Your task to perform on an android device: Add "macbook" to the cart on bestbuy.com, then select checkout. Image 0: 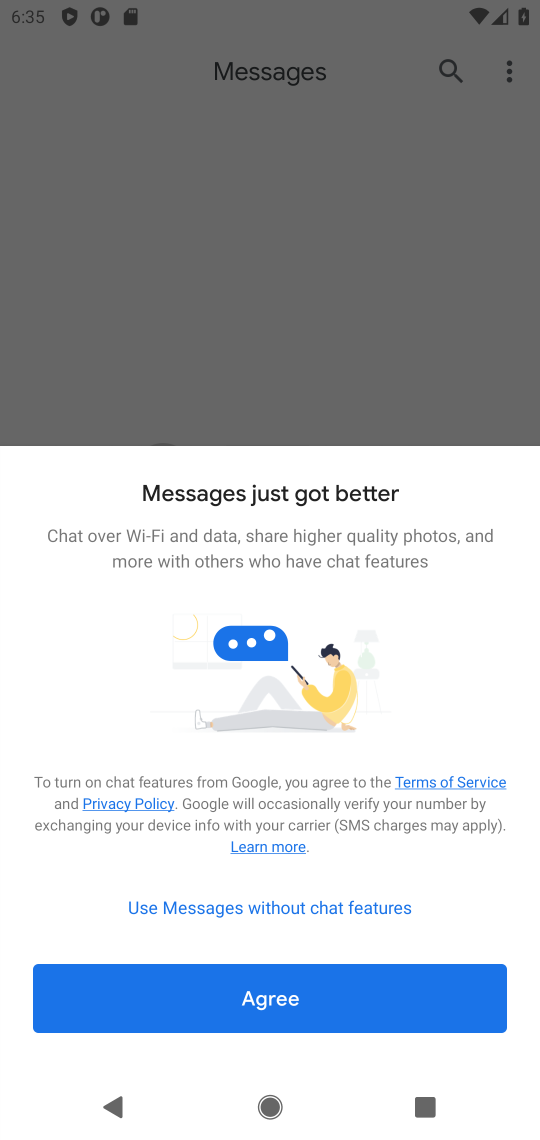
Step 0: press home button
Your task to perform on an android device: Add "macbook" to the cart on bestbuy.com, then select checkout. Image 1: 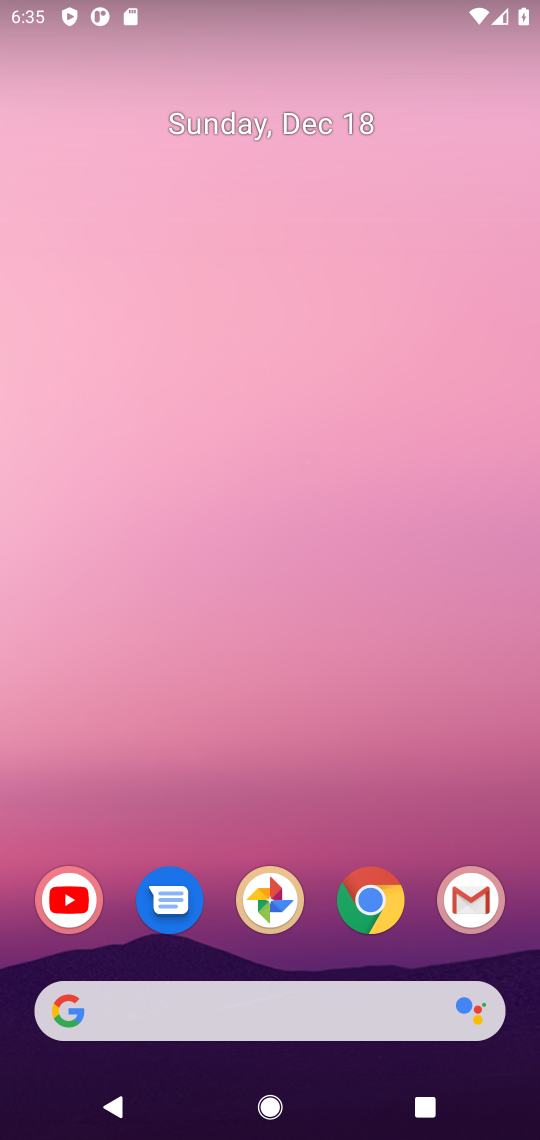
Step 1: click (363, 898)
Your task to perform on an android device: Add "macbook" to the cart on bestbuy.com, then select checkout. Image 2: 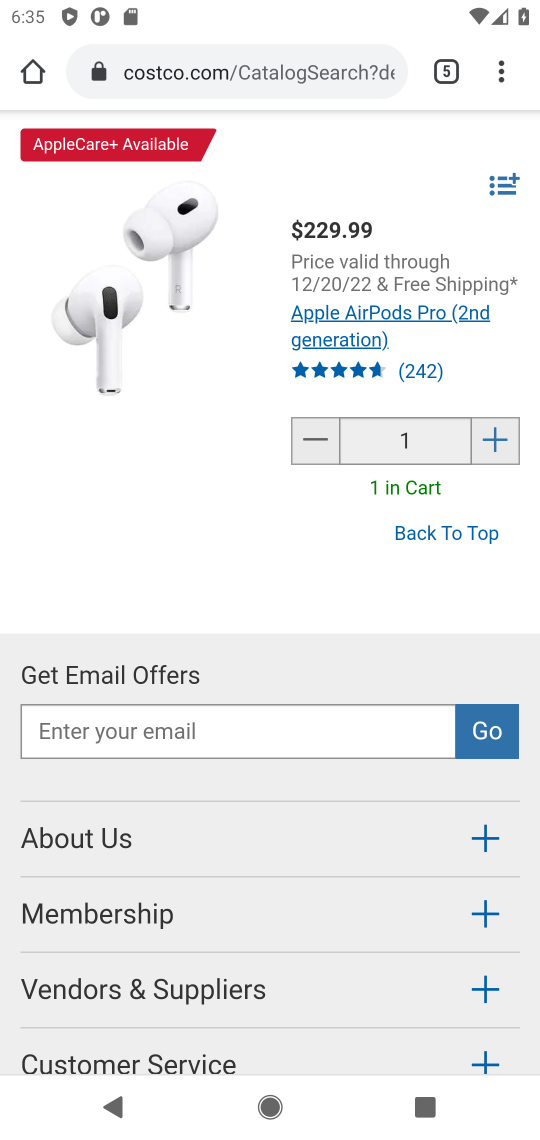
Step 2: click (436, 73)
Your task to perform on an android device: Add "macbook" to the cart on bestbuy.com, then select checkout. Image 3: 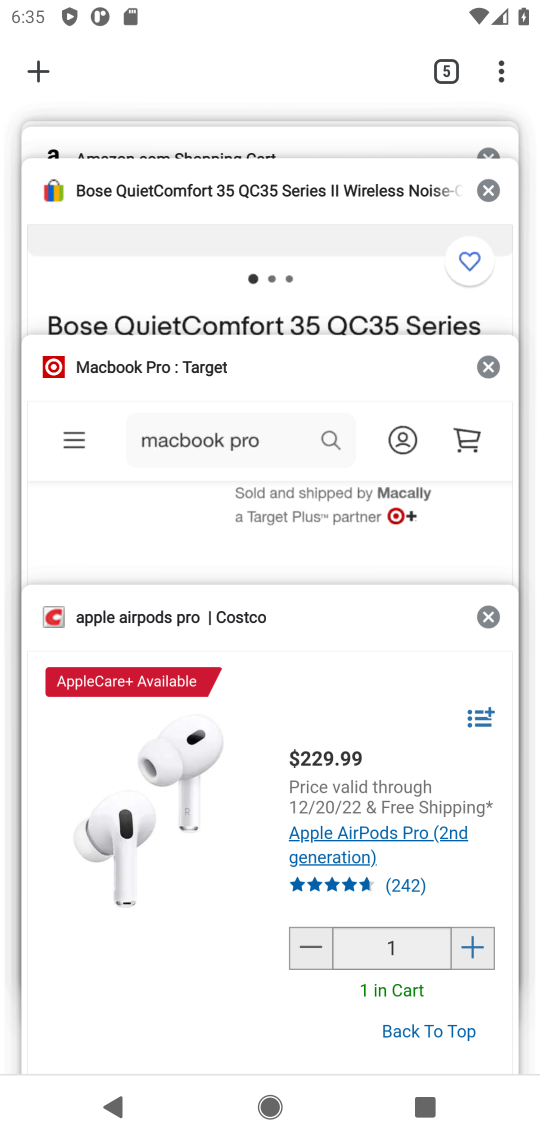
Step 3: click (47, 75)
Your task to perform on an android device: Add "macbook" to the cart on bestbuy.com, then select checkout. Image 4: 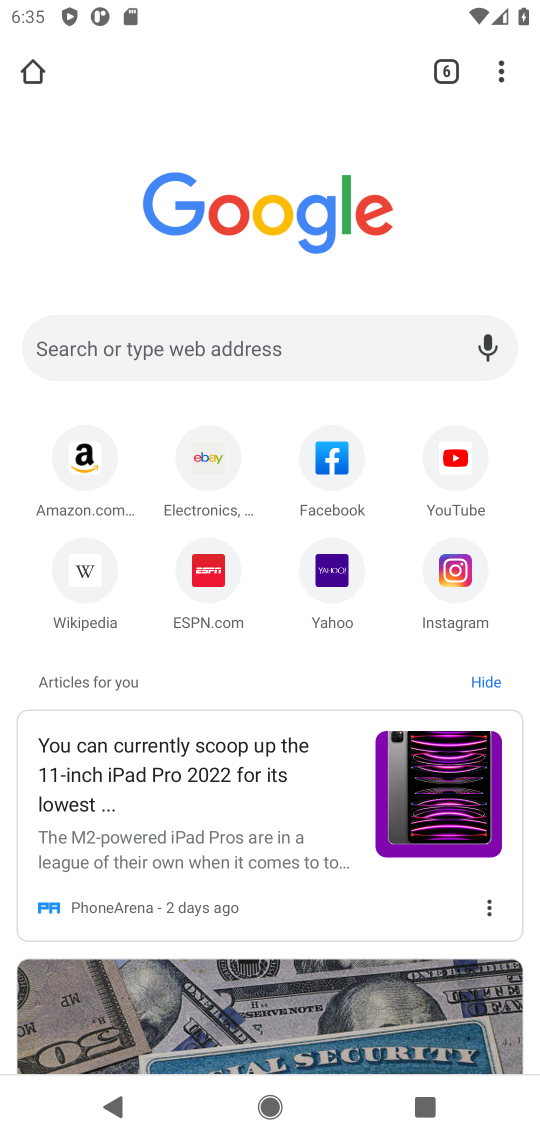
Step 4: click (243, 343)
Your task to perform on an android device: Add "macbook" to the cart on bestbuy.com, then select checkout. Image 5: 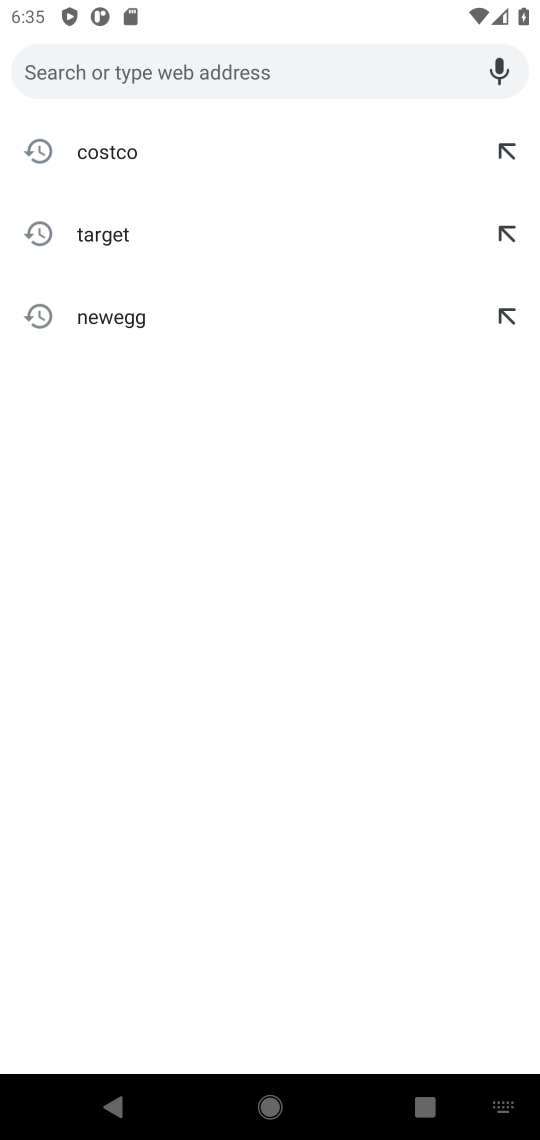
Step 5: type "bestbuy"
Your task to perform on an android device: Add "macbook" to the cart on bestbuy.com, then select checkout. Image 6: 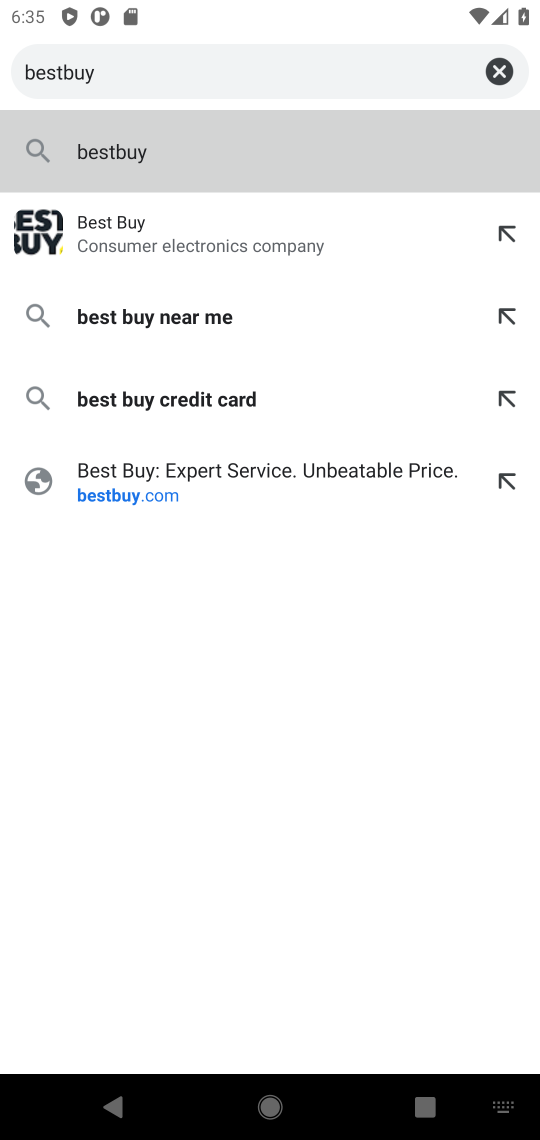
Step 6: click (90, 234)
Your task to perform on an android device: Add "macbook" to the cart on bestbuy.com, then select checkout. Image 7: 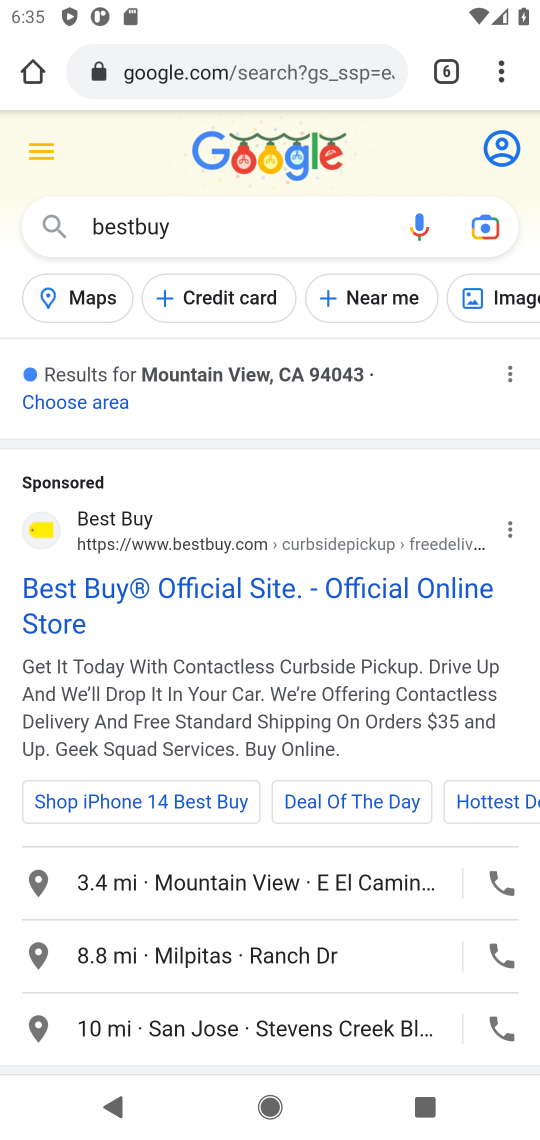
Step 7: click (204, 600)
Your task to perform on an android device: Add "macbook" to the cart on bestbuy.com, then select checkout. Image 8: 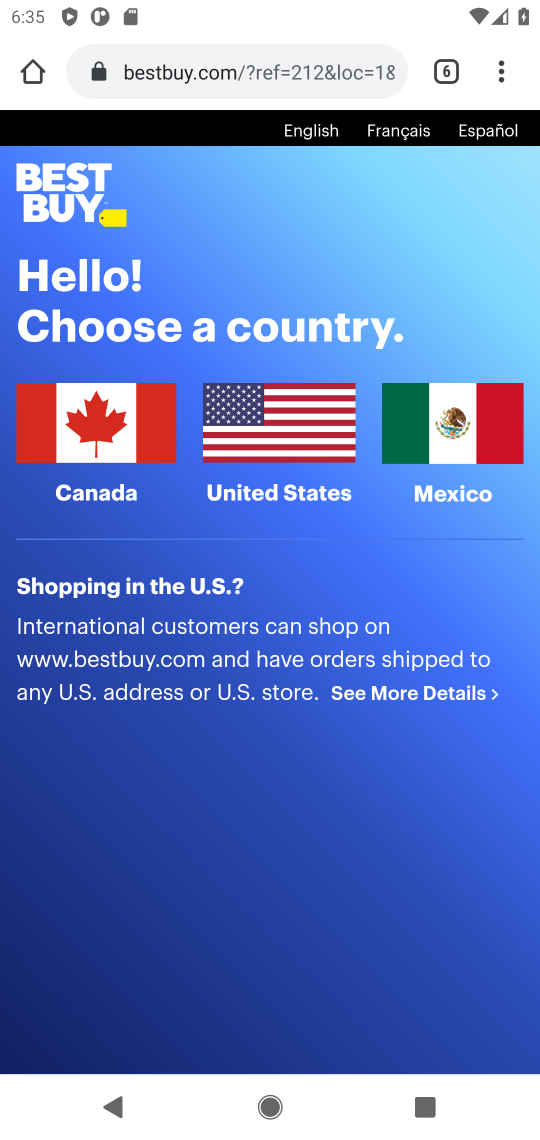
Step 8: click (266, 434)
Your task to perform on an android device: Add "macbook" to the cart on bestbuy.com, then select checkout. Image 9: 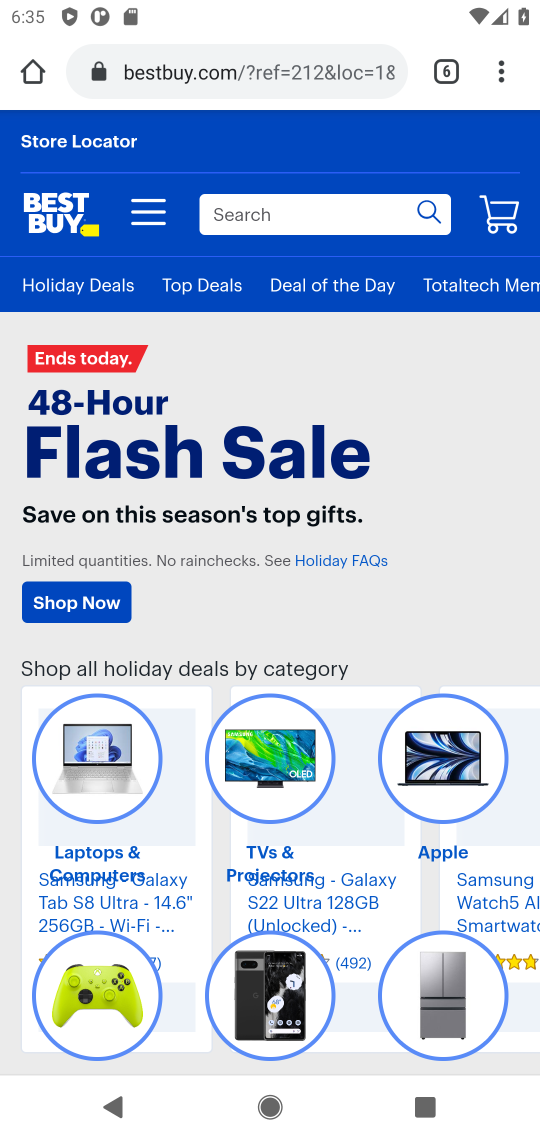
Step 9: click (242, 219)
Your task to perform on an android device: Add "macbook" to the cart on bestbuy.com, then select checkout. Image 10: 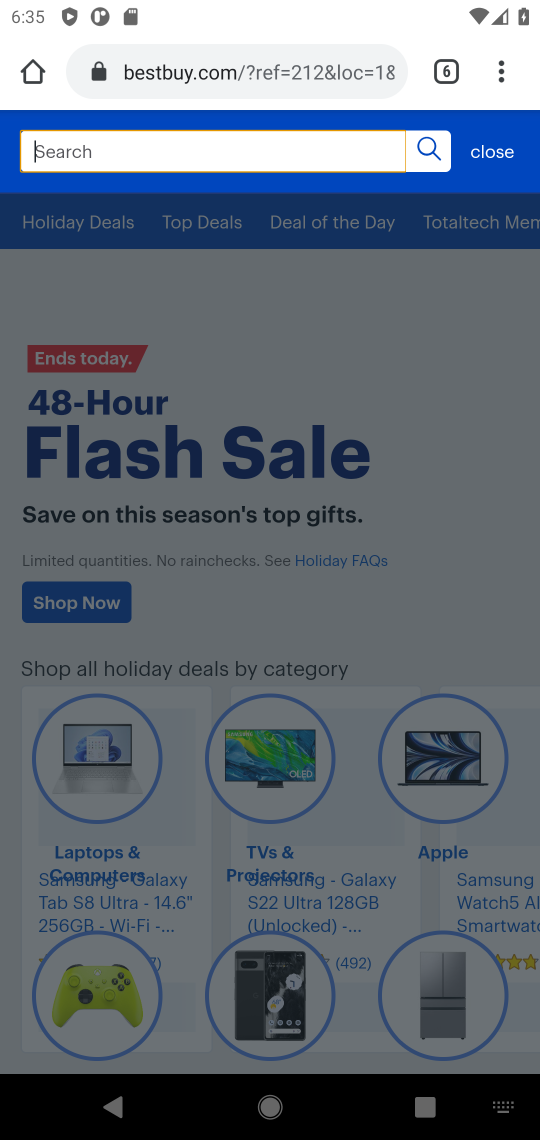
Step 10: type "macbook"
Your task to perform on an android device: Add "macbook" to the cart on bestbuy.com, then select checkout. Image 11: 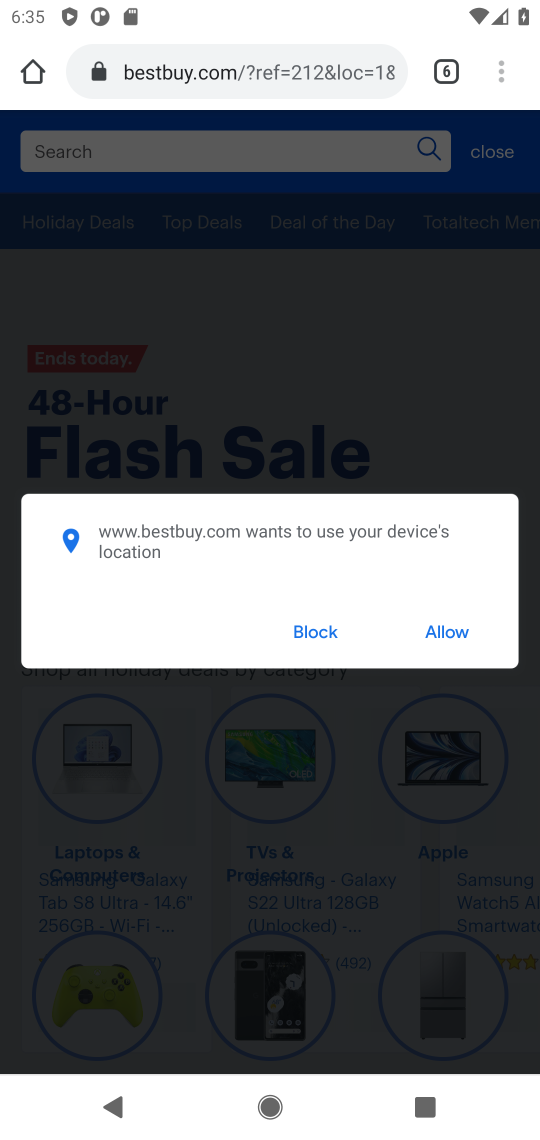
Step 11: click (306, 626)
Your task to perform on an android device: Add "macbook" to the cart on bestbuy.com, then select checkout. Image 12: 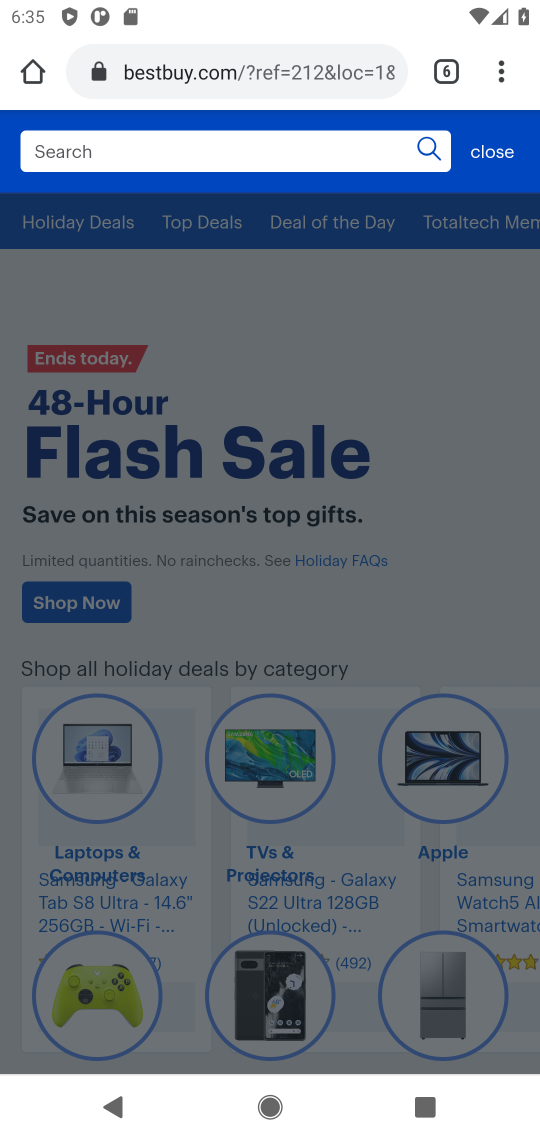
Step 12: click (119, 155)
Your task to perform on an android device: Add "macbook" to the cart on bestbuy.com, then select checkout. Image 13: 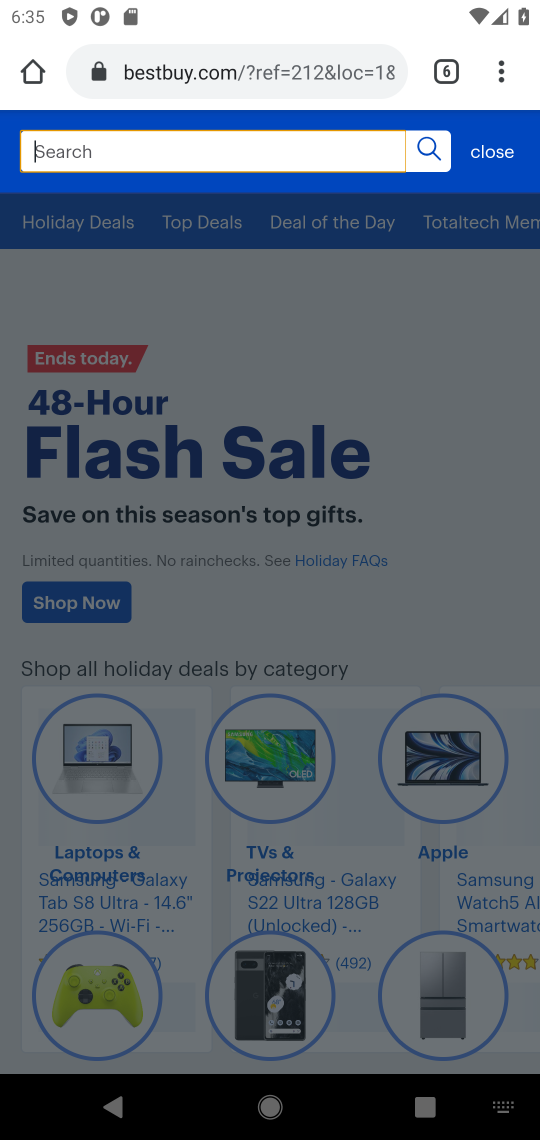
Step 13: type "macbook"
Your task to perform on an android device: Add "macbook" to the cart on bestbuy.com, then select checkout. Image 14: 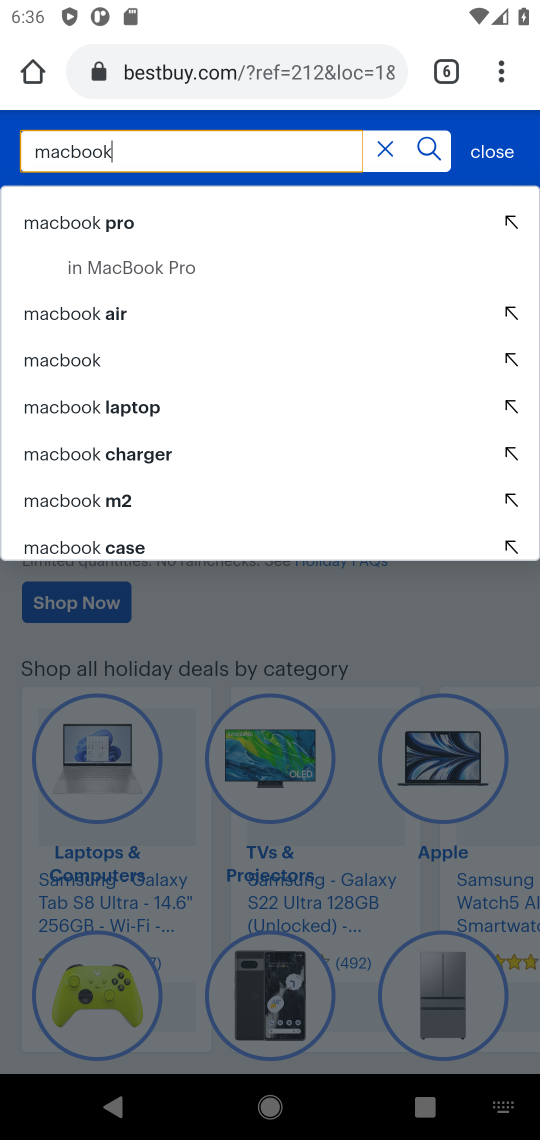
Step 14: click (90, 221)
Your task to perform on an android device: Add "macbook" to the cart on bestbuy.com, then select checkout. Image 15: 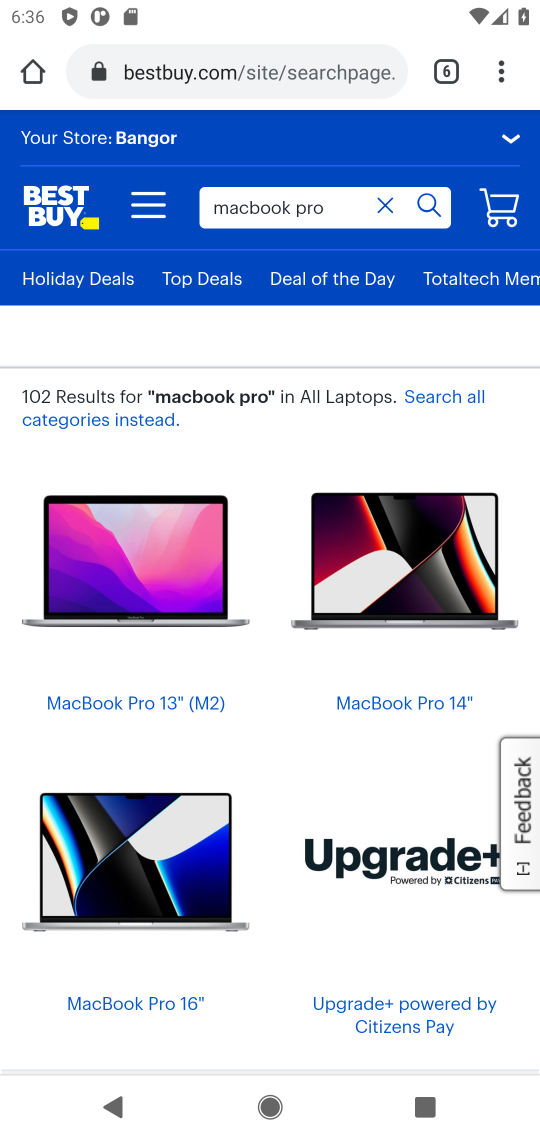
Step 15: drag from (290, 931) to (346, 347)
Your task to perform on an android device: Add "macbook" to the cart on bestbuy.com, then select checkout. Image 16: 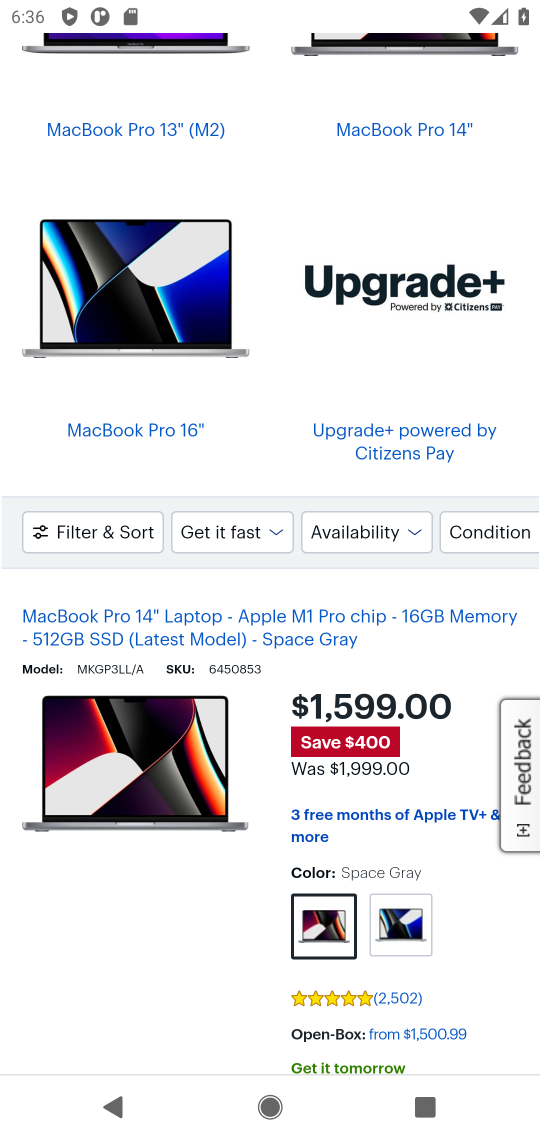
Step 16: drag from (215, 943) to (329, 418)
Your task to perform on an android device: Add "macbook" to the cart on bestbuy.com, then select checkout. Image 17: 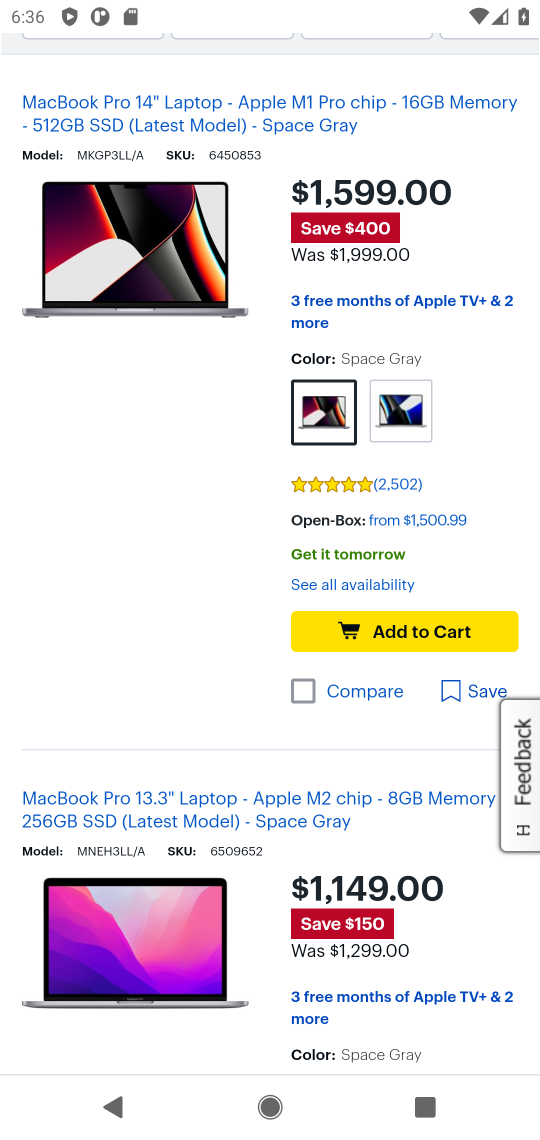
Step 17: click (442, 626)
Your task to perform on an android device: Add "macbook" to the cart on bestbuy.com, then select checkout. Image 18: 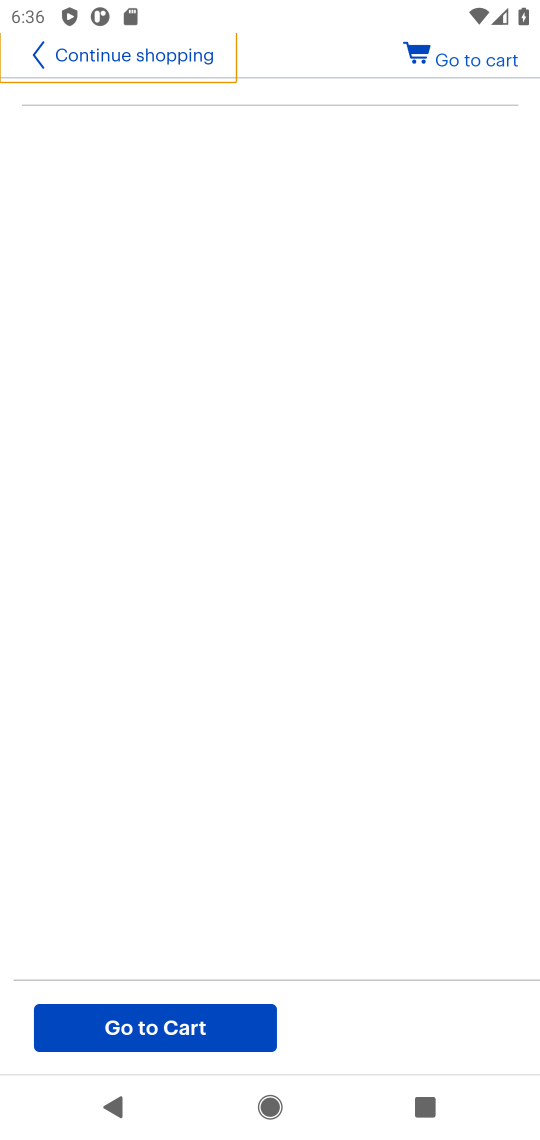
Step 18: task complete